Your task to perform on an android device: Open maps Image 0: 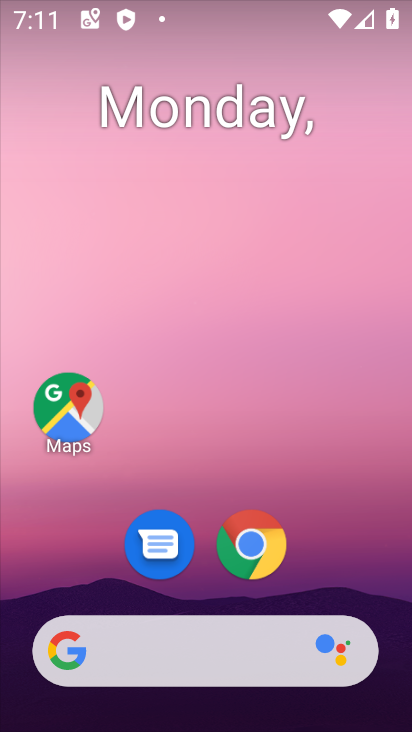
Step 0: click (67, 401)
Your task to perform on an android device: Open maps Image 1: 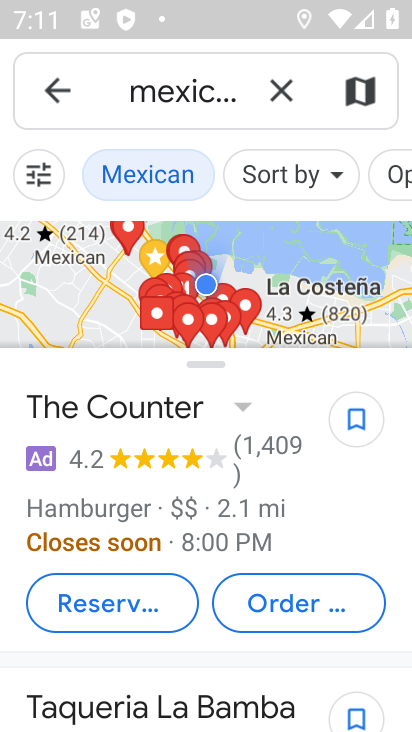
Step 1: task complete